Your task to perform on an android device: Open Yahoo.com Image 0: 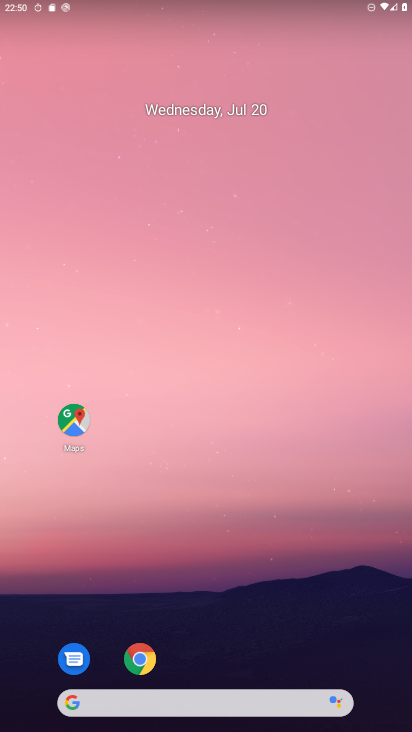
Step 0: drag from (241, 455) to (153, 46)
Your task to perform on an android device: Open Yahoo.com Image 1: 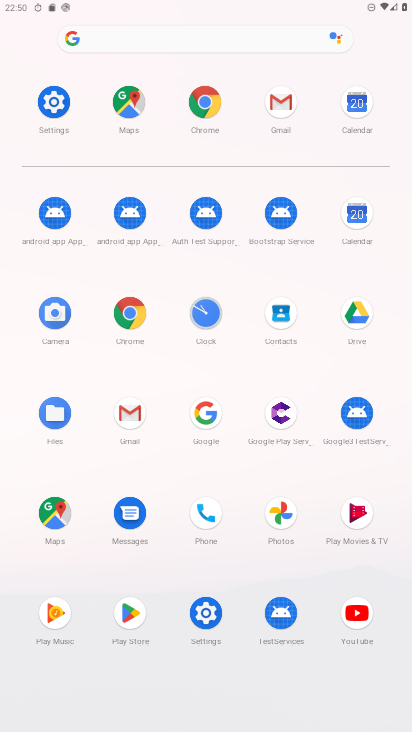
Step 1: click (212, 101)
Your task to perform on an android device: Open Yahoo.com Image 2: 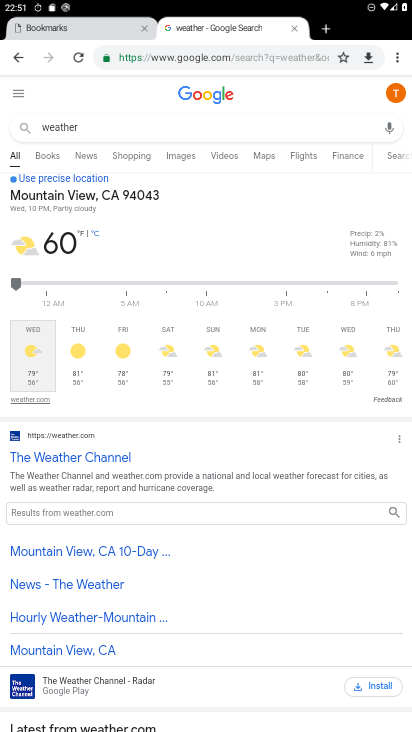
Step 2: click (244, 54)
Your task to perform on an android device: Open Yahoo.com Image 3: 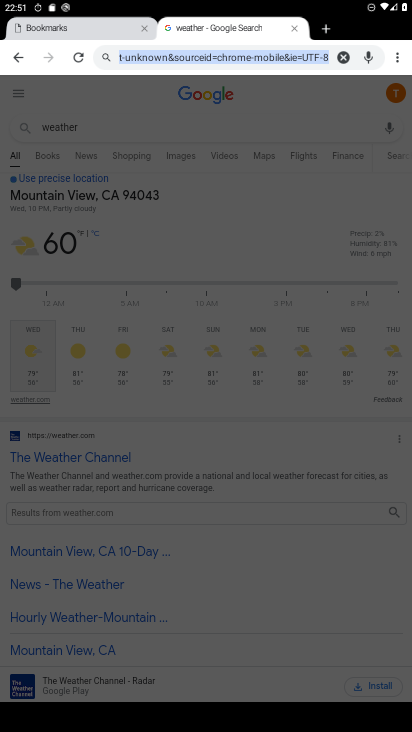
Step 3: type "yahoo.com"
Your task to perform on an android device: Open Yahoo.com Image 4: 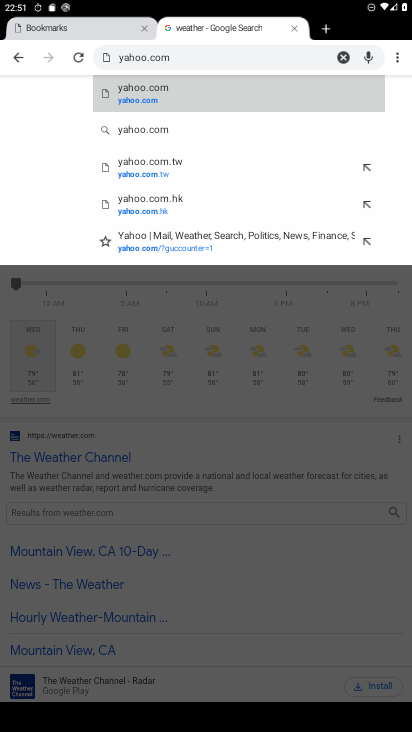
Step 4: click (160, 72)
Your task to perform on an android device: Open Yahoo.com Image 5: 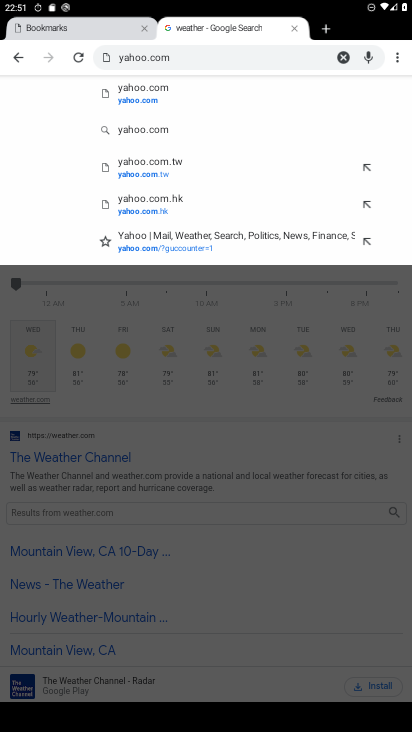
Step 5: click (144, 94)
Your task to perform on an android device: Open Yahoo.com Image 6: 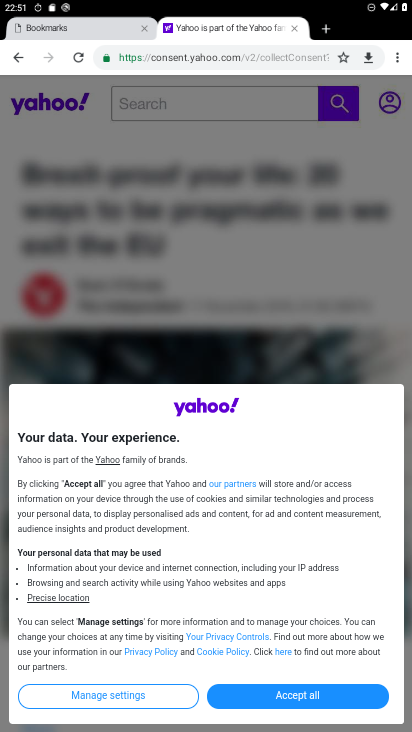
Step 6: task complete